Your task to perform on an android device: Go to Google maps Image 0: 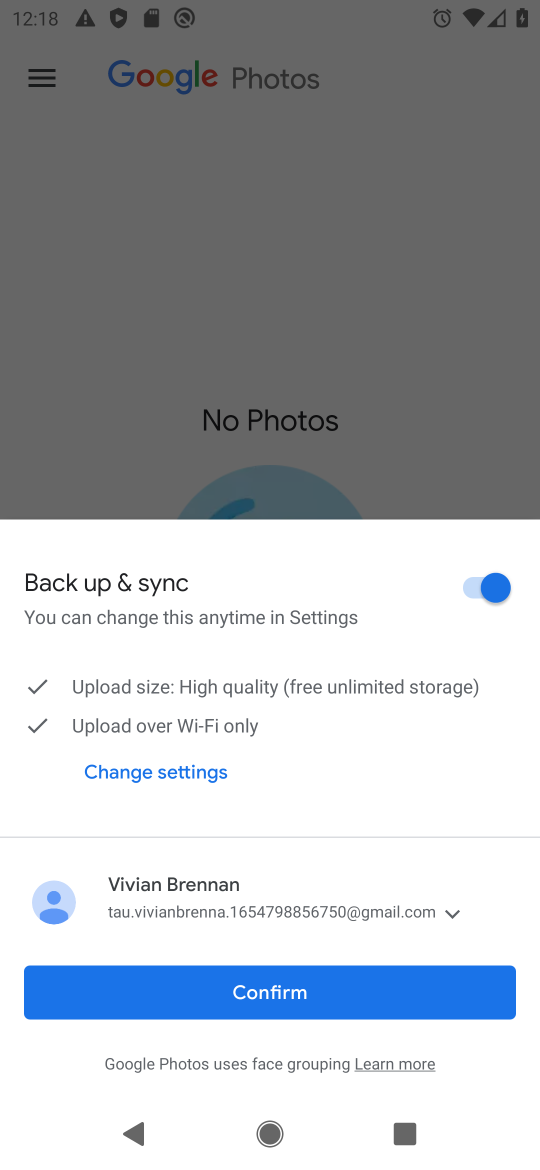
Step 0: task complete